Your task to perform on an android device: Open Google Maps Image 0: 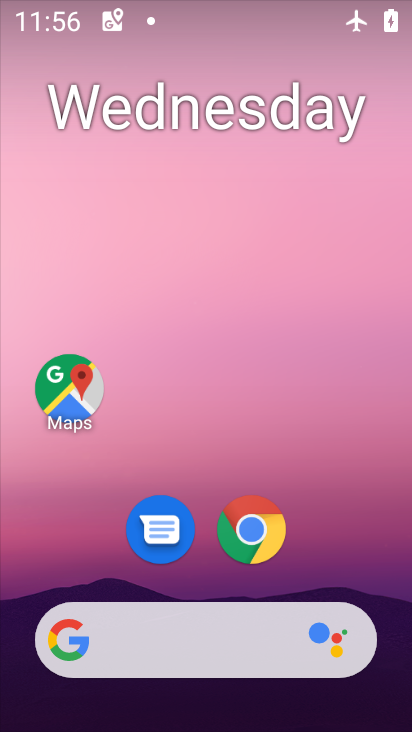
Step 0: click (71, 385)
Your task to perform on an android device: Open Google Maps Image 1: 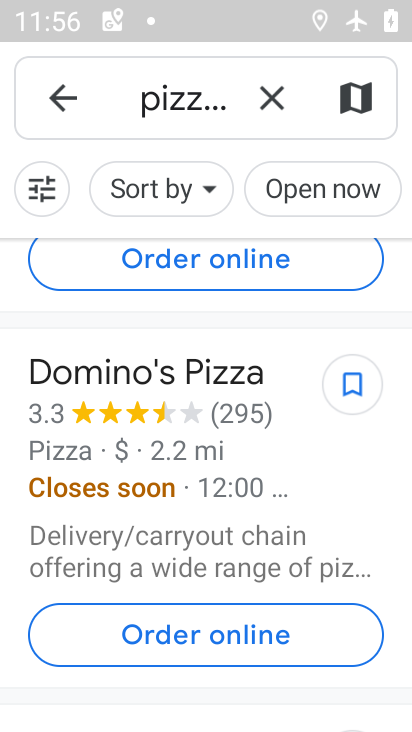
Step 1: click (272, 93)
Your task to perform on an android device: Open Google Maps Image 2: 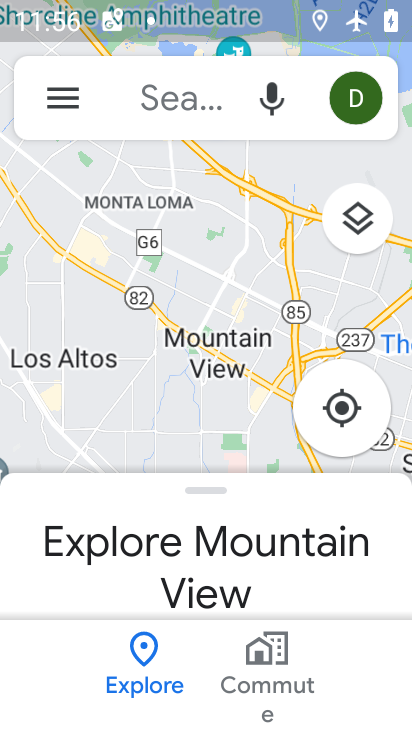
Step 2: task complete